Your task to perform on an android device: Go to calendar. Show me events next week Image 0: 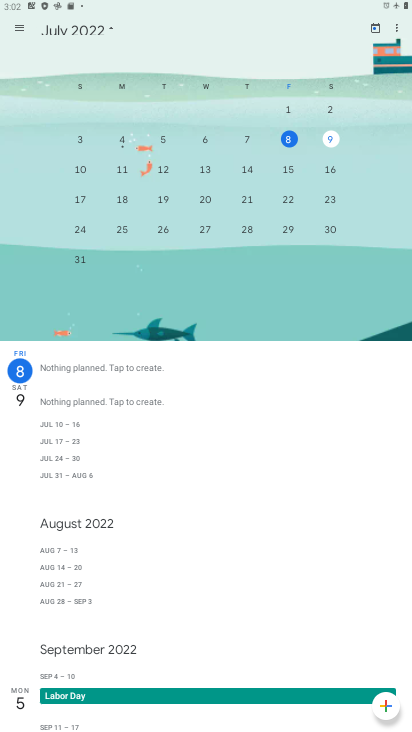
Step 0: click (14, 26)
Your task to perform on an android device: Go to calendar. Show me events next week Image 1: 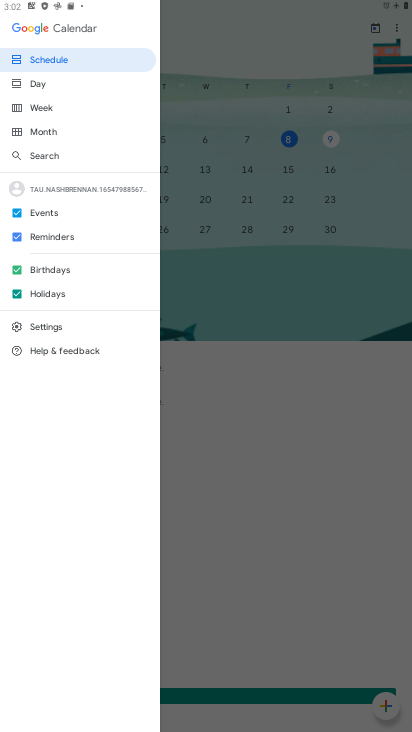
Step 1: click (35, 101)
Your task to perform on an android device: Go to calendar. Show me events next week Image 2: 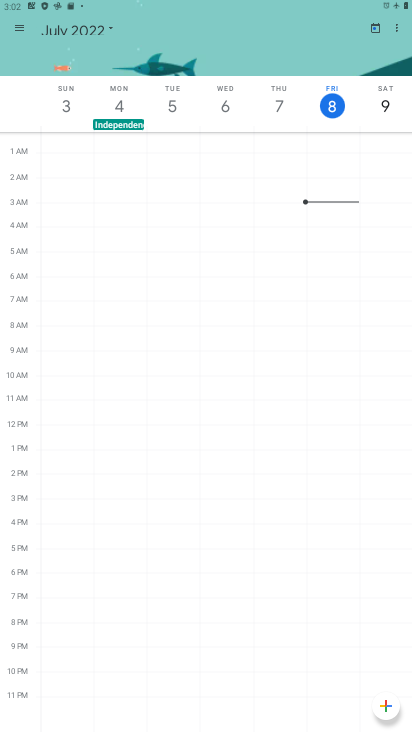
Step 2: click (23, 29)
Your task to perform on an android device: Go to calendar. Show me events next week Image 3: 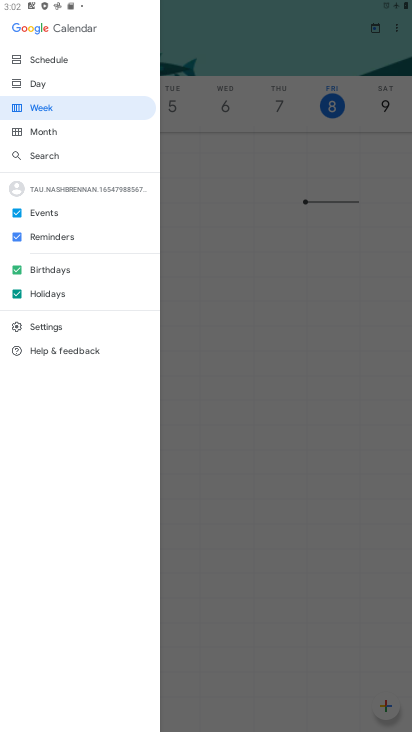
Step 3: click (36, 52)
Your task to perform on an android device: Go to calendar. Show me events next week Image 4: 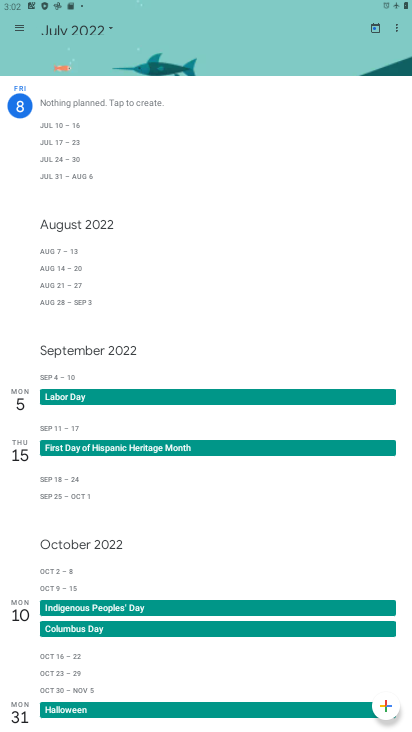
Step 4: task complete